Your task to perform on an android device: Search for vegetarian restaurants on Maps Image 0: 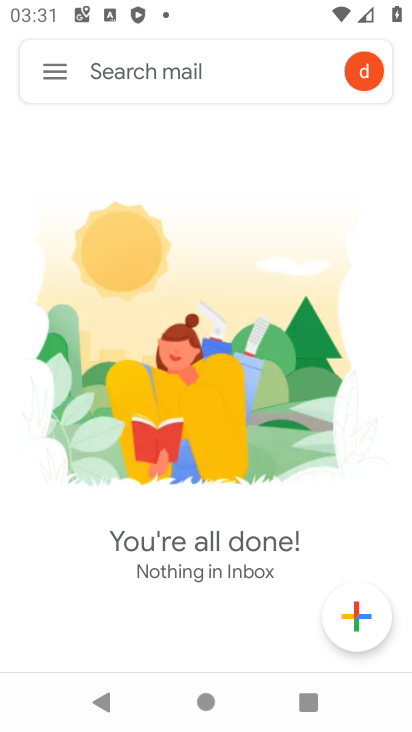
Step 0: press home button
Your task to perform on an android device: Search for vegetarian restaurants on Maps Image 1: 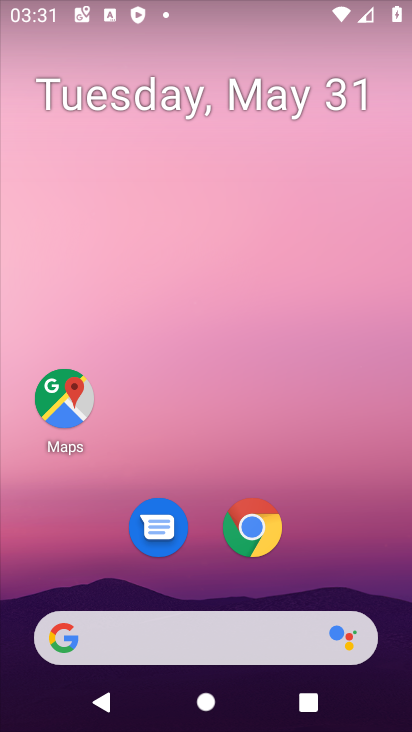
Step 1: click (67, 404)
Your task to perform on an android device: Search for vegetarian restaurants on Maps Image 2: 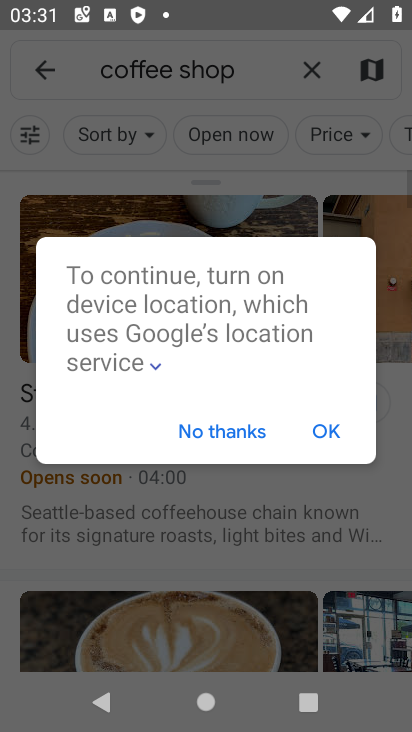
Step 2: click (311, 65)
Your task to perform on an android device: Search for vegetarian restaurants on Maps Image 3: 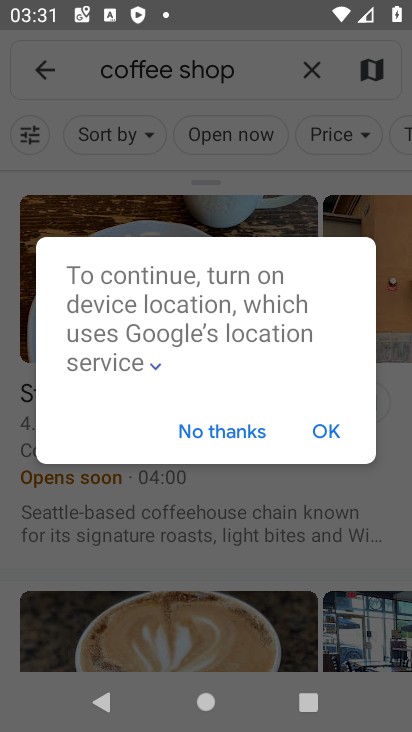
Step 3: click (335, 422)
Your task to perform on an android device: Search for vegetarian restaurants on Maps Image 4: 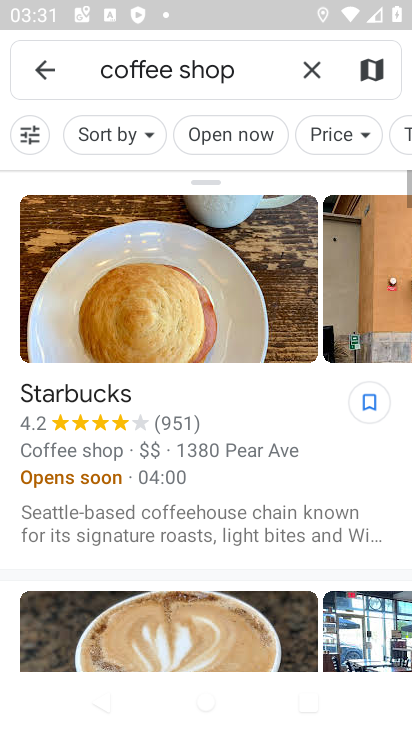
Step 4: click (313, 60)
Your task to perform on an android device: Search for vegetarian restaurants on Maps Image 5: 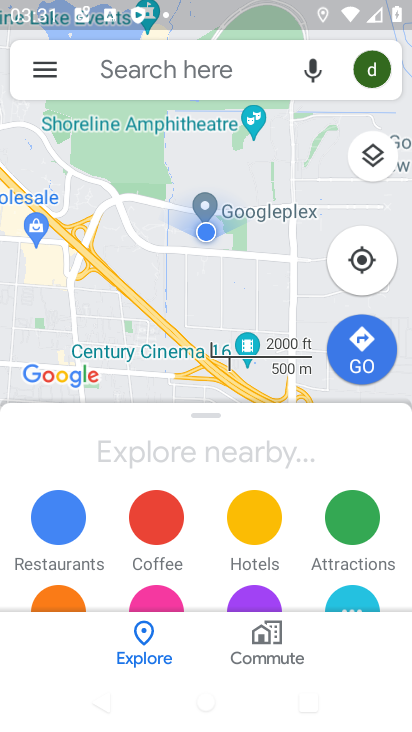
Step 5: click (190, 66)
Your task to perform on an android device: Search for vegetarian restaurants on Maps Image 6: 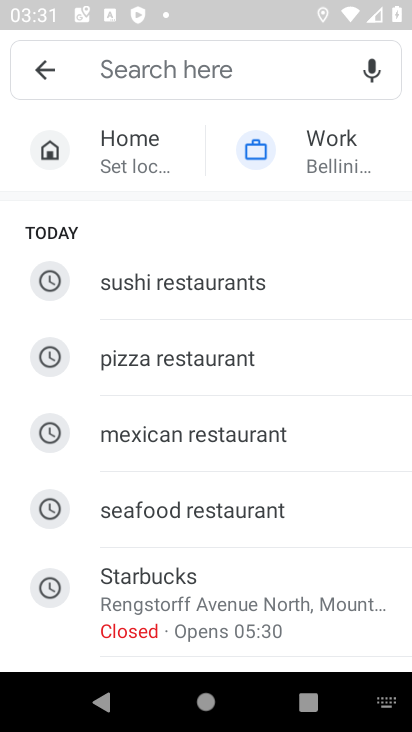
Step 6: type "vegetarian restaurants"
Your task to perform on an android device: Search for vegetarian restaurants on Maps Image 7: 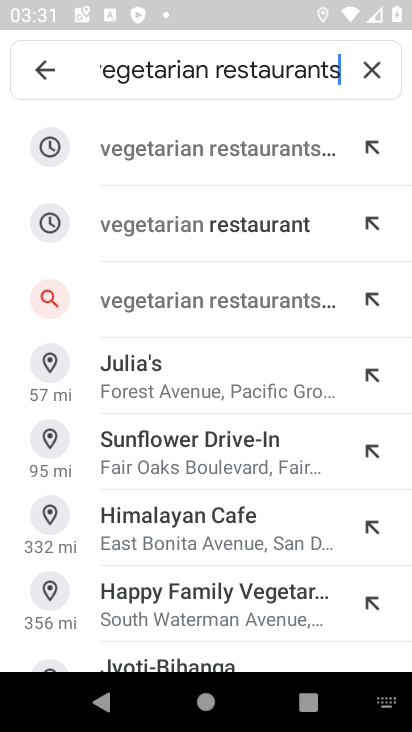
Step 7: click (165, 158)
Your task to perform on an android device: Search for vegetarian restaurants on Maps Image 8: 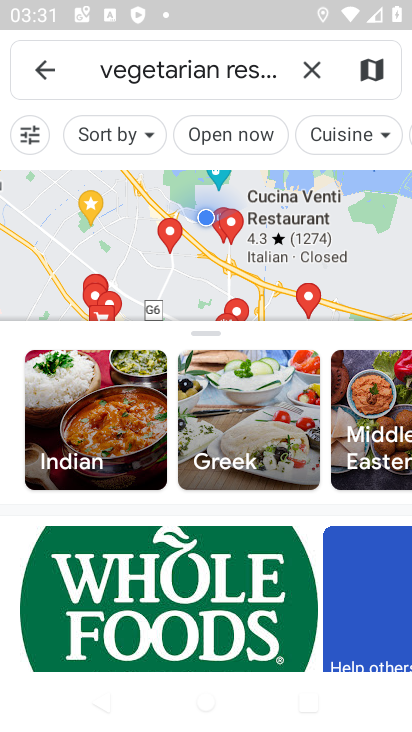
Step 8: task complete